Your task to perform on an android device: Search for seafood restaurants on Google Maps Image 0: 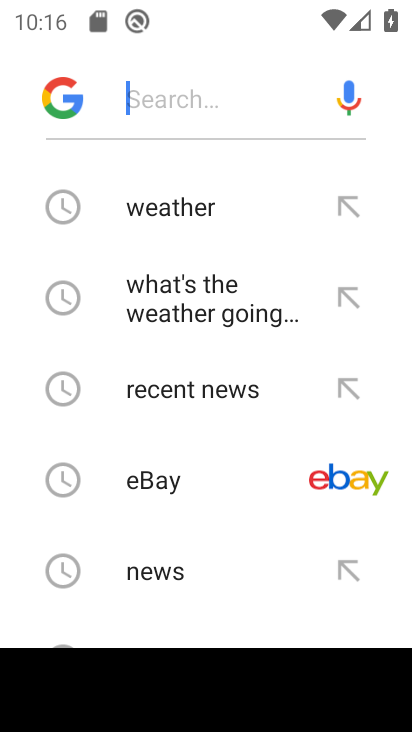
Step 0: press home button
Your task to perform on an android device: Search for seafood restaurants on Google Maps Image 1: 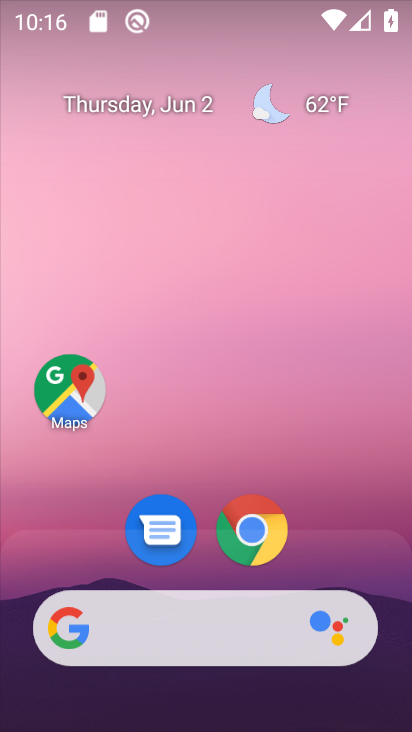
Step 1: click (85, 411)
Your task to perform on an android device: Search for seafood restaurants on Google Maps Image 2: 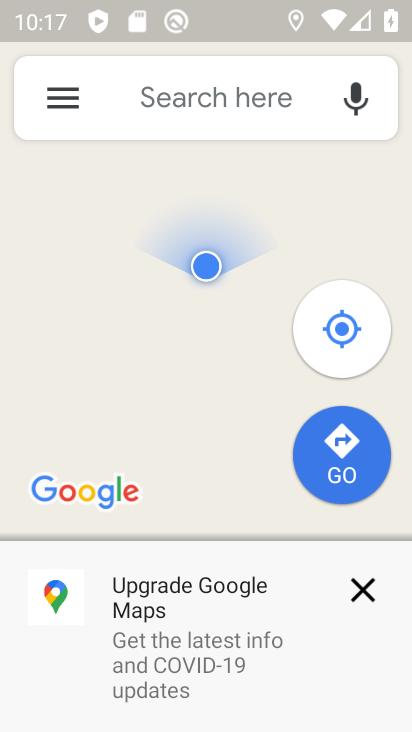
Step 2: click (212, 124)
Your task to perform on an android device: Search for seafood restaurants on Google Maps Image 3: 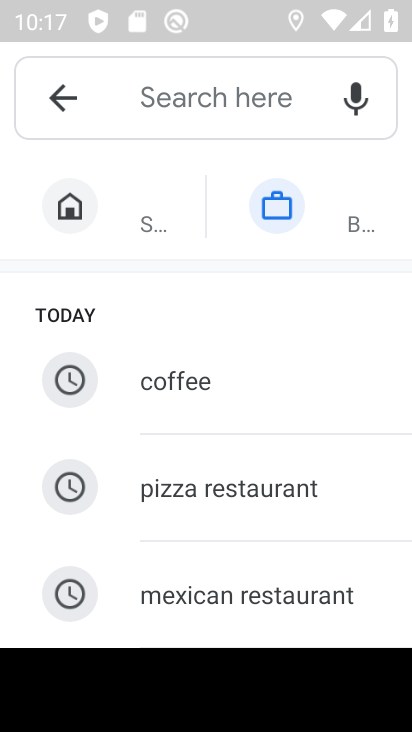
Step 3: type "seafood restaurants"
Your task to perform on an android device: Search for seafood restaurants on Google Maps Image 4: 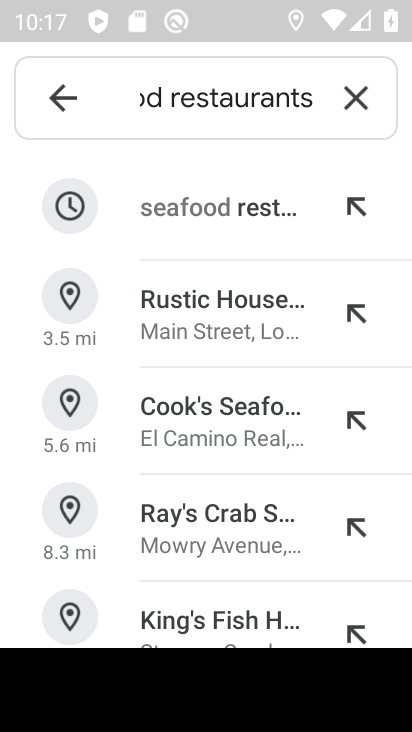
Step 4: click (226, 242)
Your task to perform on an android device: Search for seafood restaurants on Google Maps Image 5: 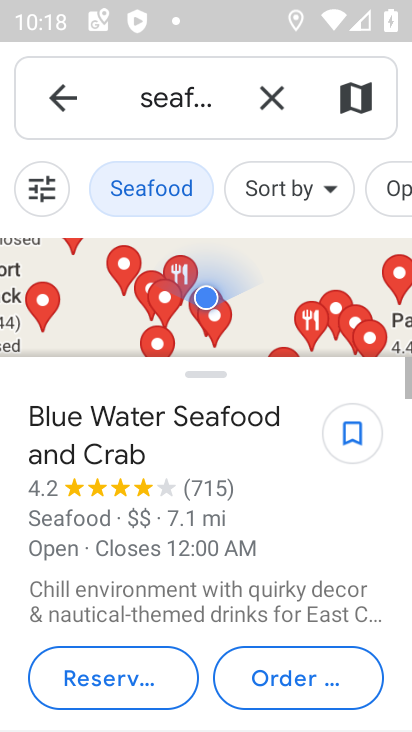
Step 5: task complete